Your task to perform on an android device: check out phone information Image 0: 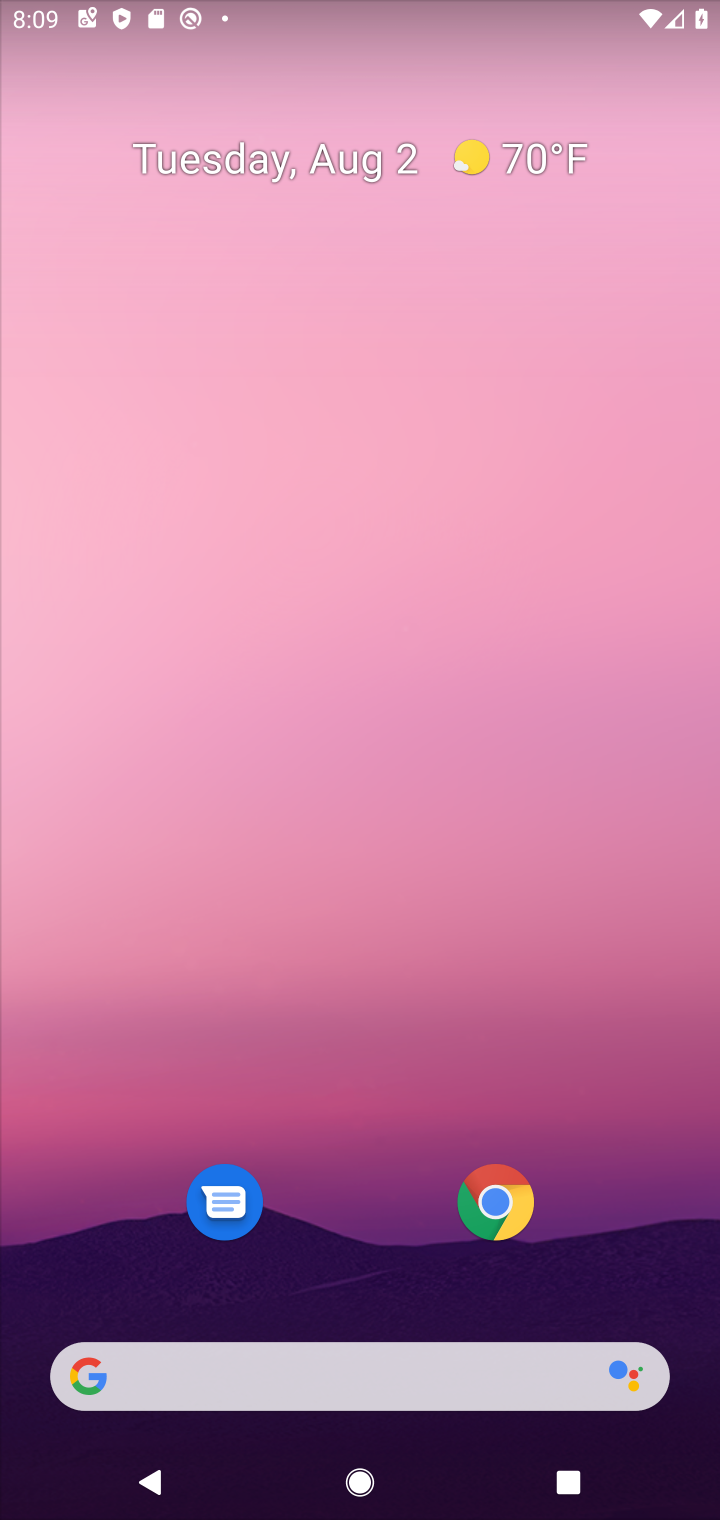
Step 0: drag from (433, 1263) to (367, 34)
Your task to perform on an android device: check out phone information Image 1: 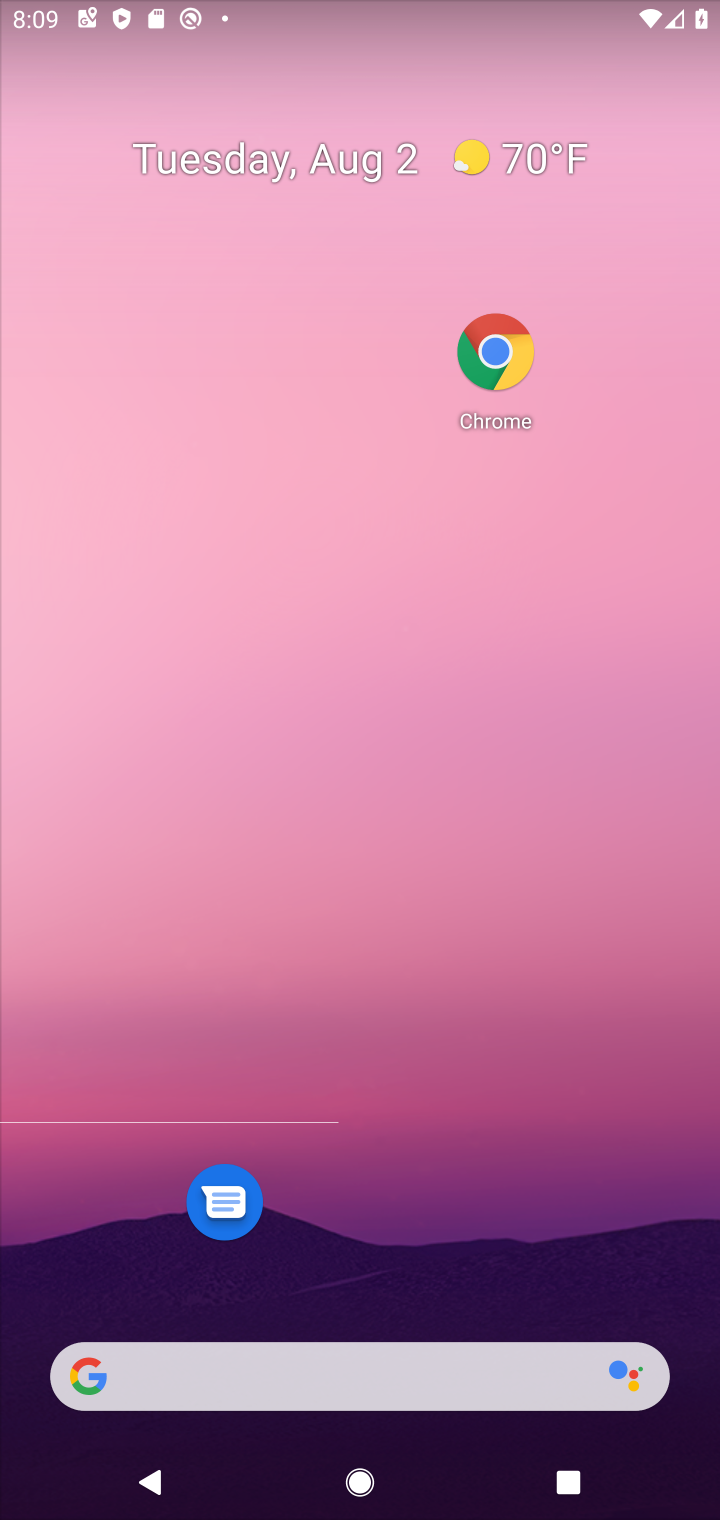
Step 1: drag from (404, 1221) to (428, 11)
Your task to perform on an android device: check out phone information Image 2: 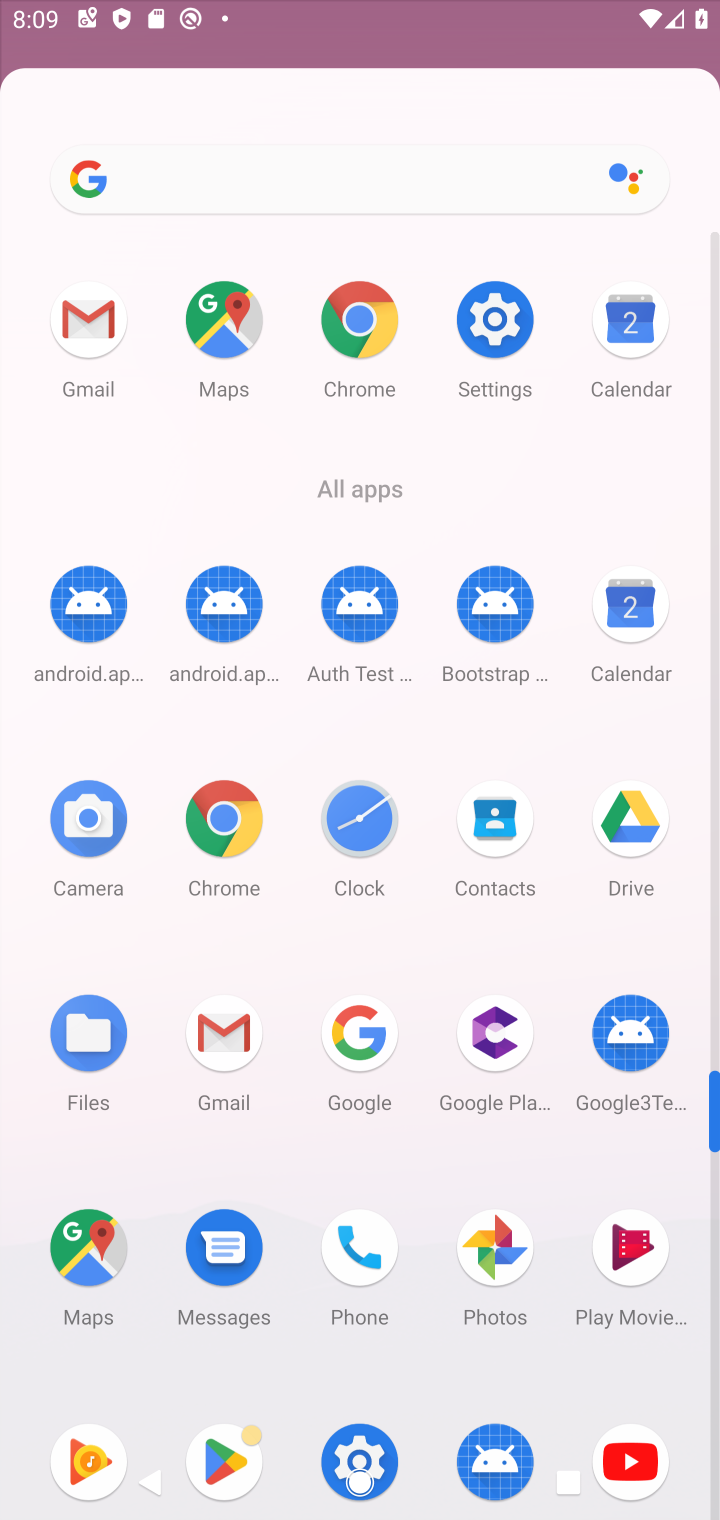
Step 2: click (499, 306)
Your task to perform on an android device: check out phone information Image 3: 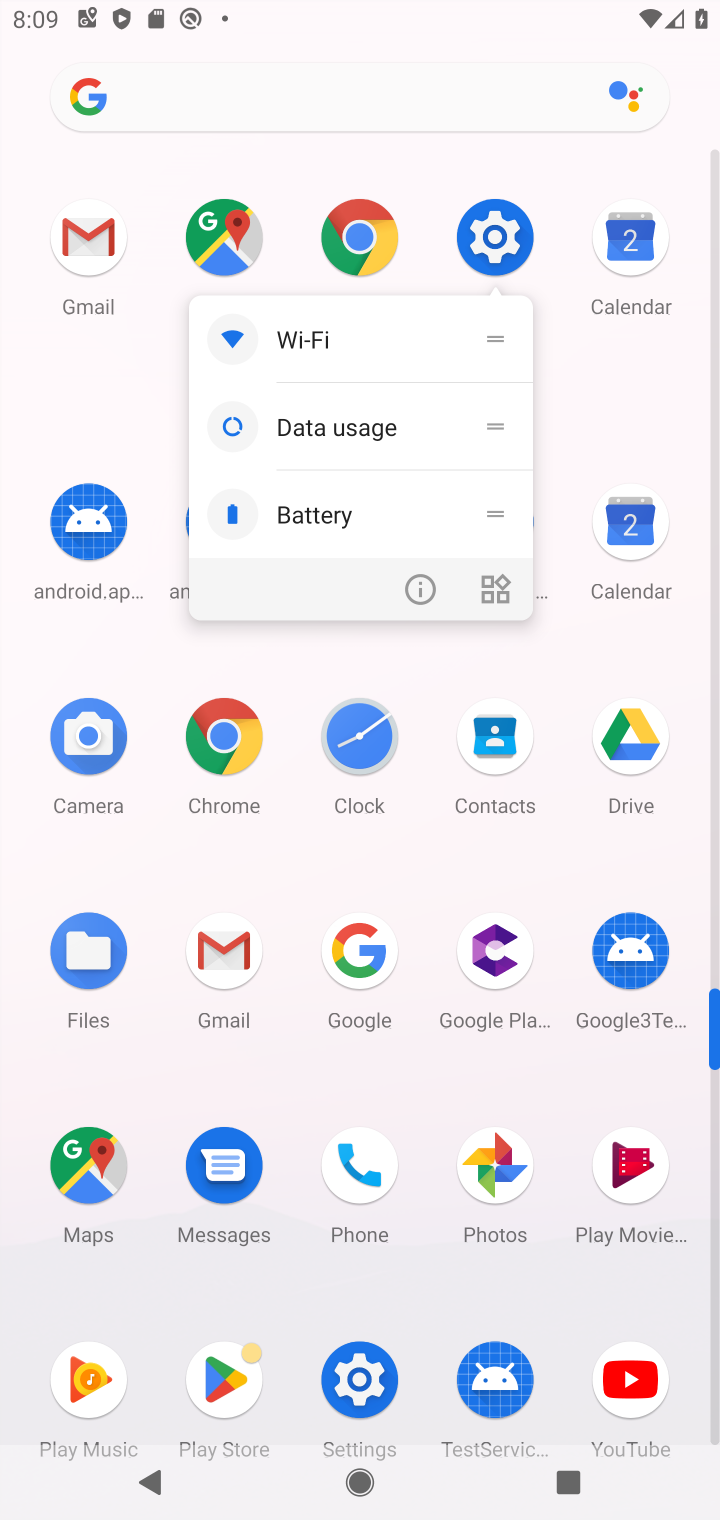
Step 3: click (497, 257)
Your task to perform on an android device: check out phone information Image 4: 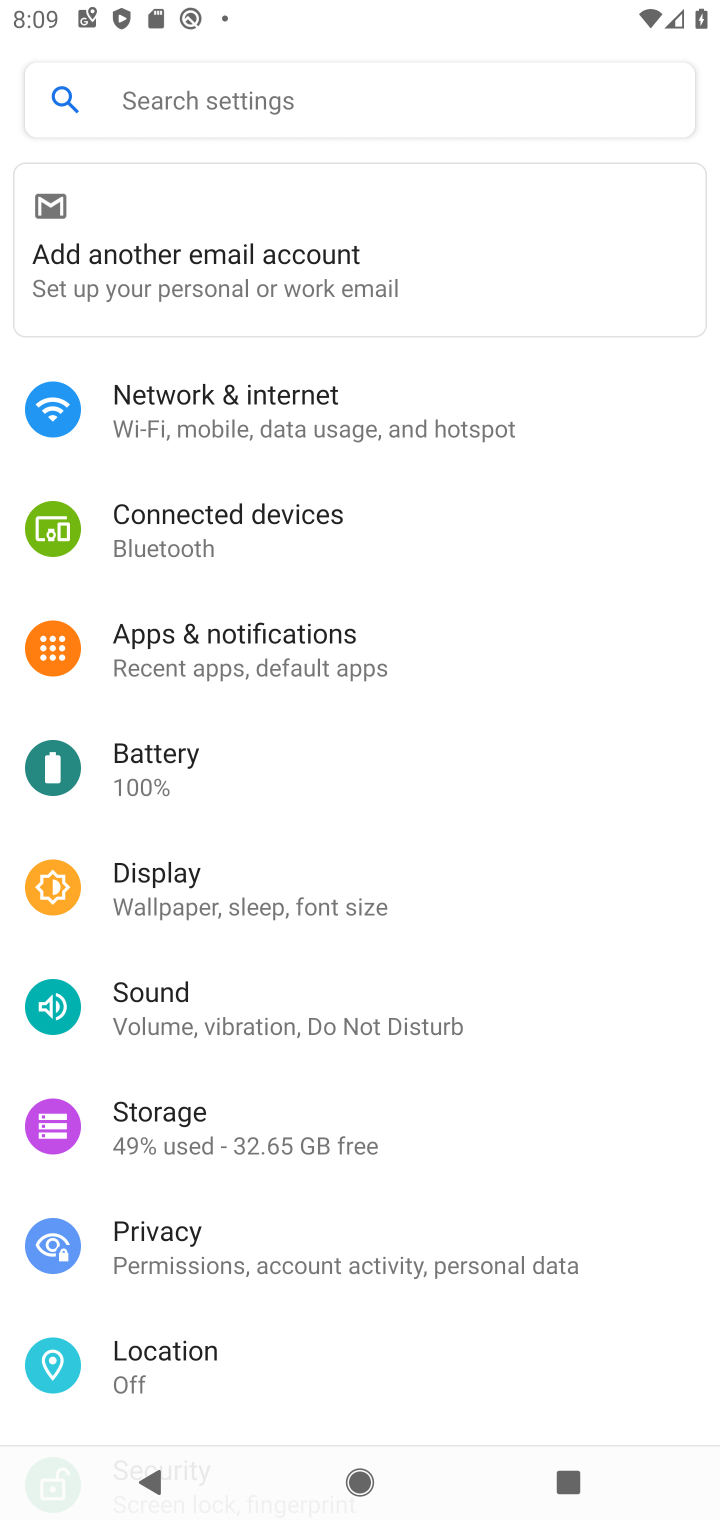
Step 4: drag from (580, 1275) to (576, 437)
Your task to perform on an android device: check out phone information Image 5: 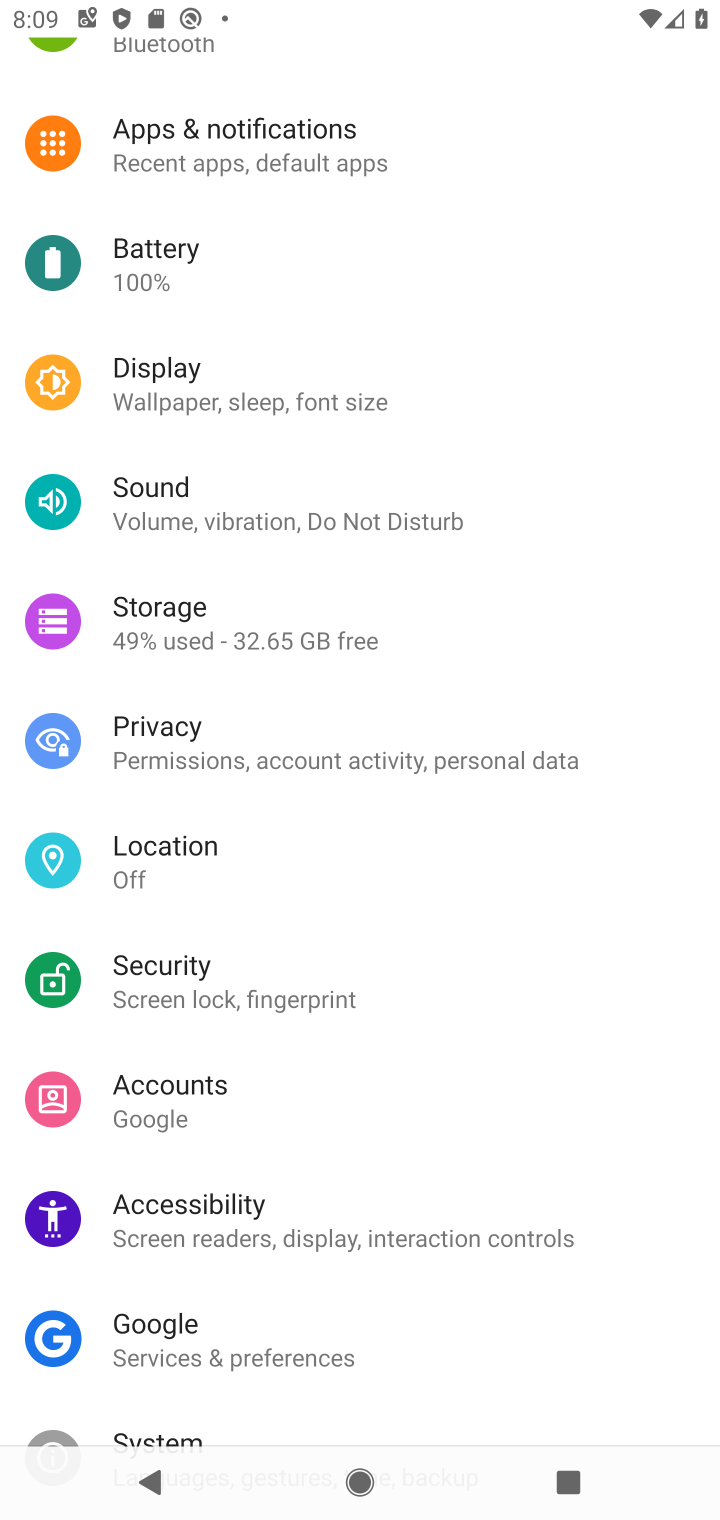
Step 5: drag from (645, 1337) to (604, 355)
Your task to perform on an android device: check out phone information Image 6: 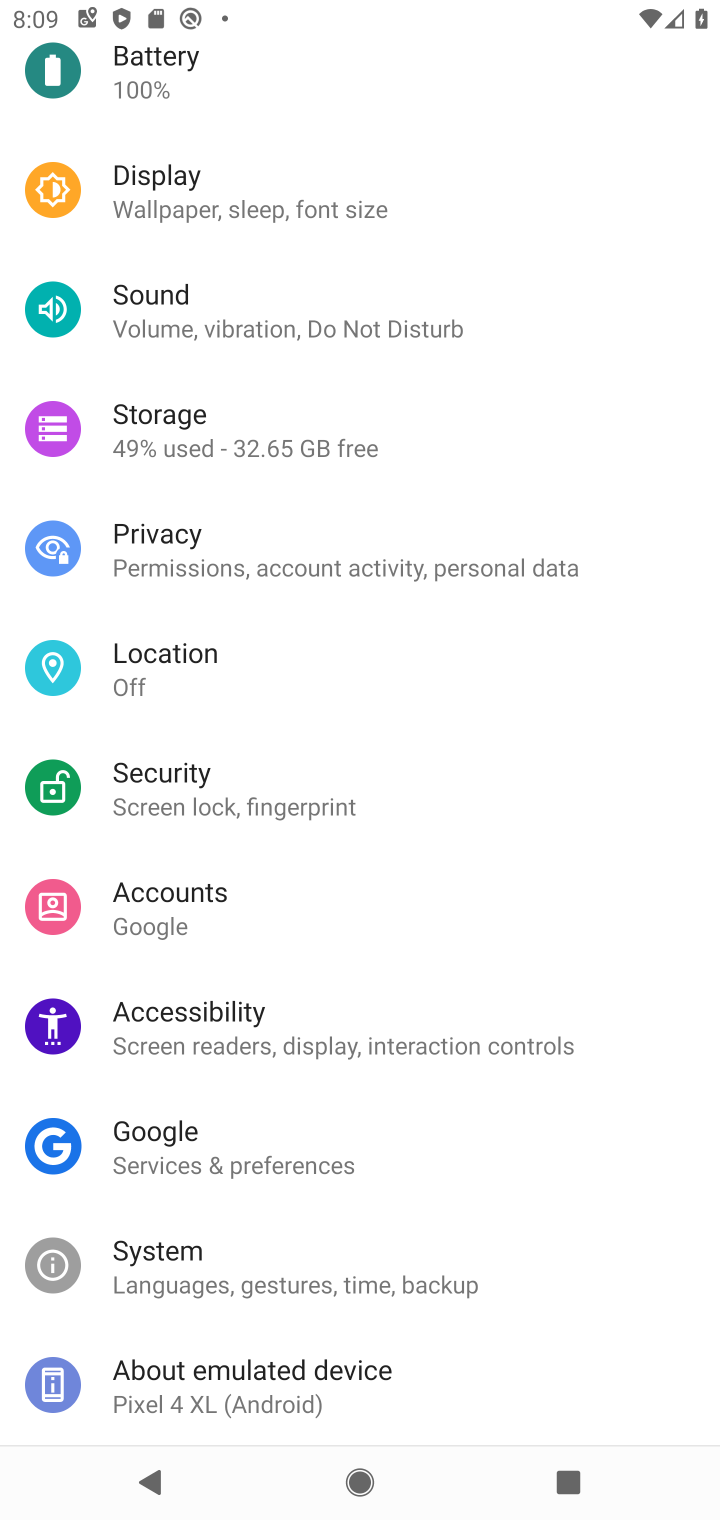
Step 6: click (225, 1409)
Your task to perform on an android device: check out phone information Image 7: 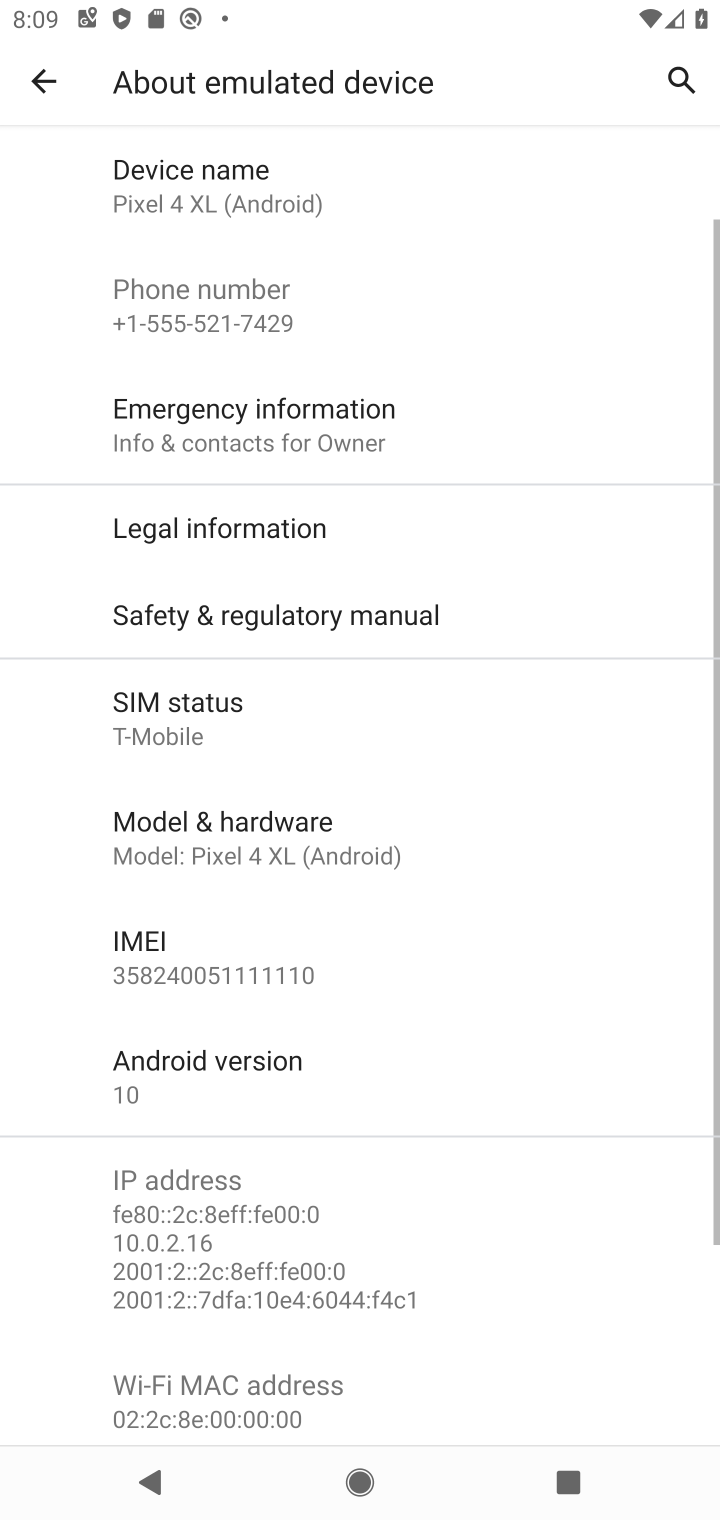
Step 7: task complete